Your task to perform on an android device: Go to Google Image 0: 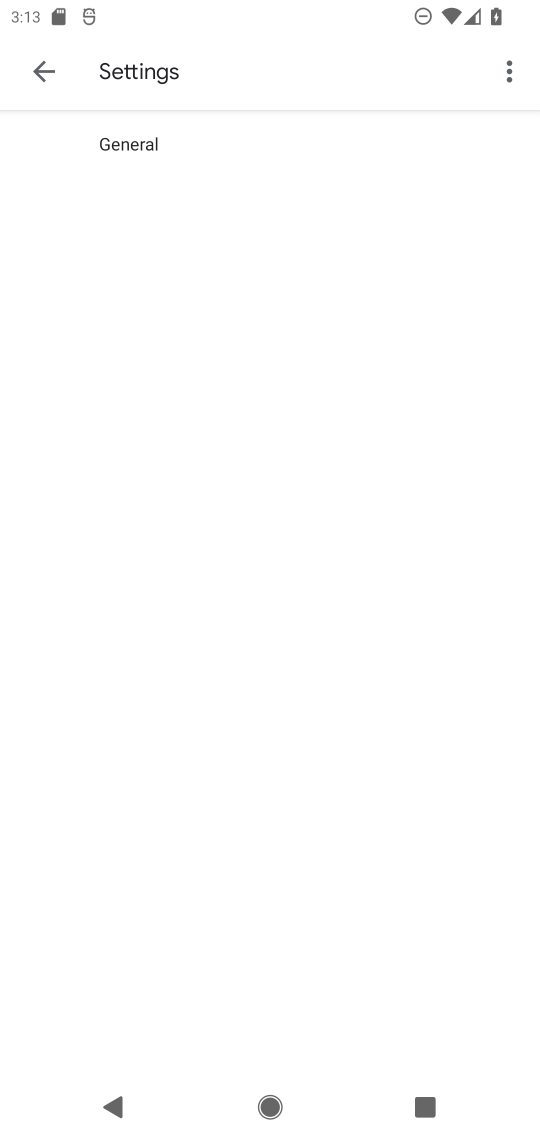
Step 0: press home button
Your task to perform on an android device: Go to Google Image 1: 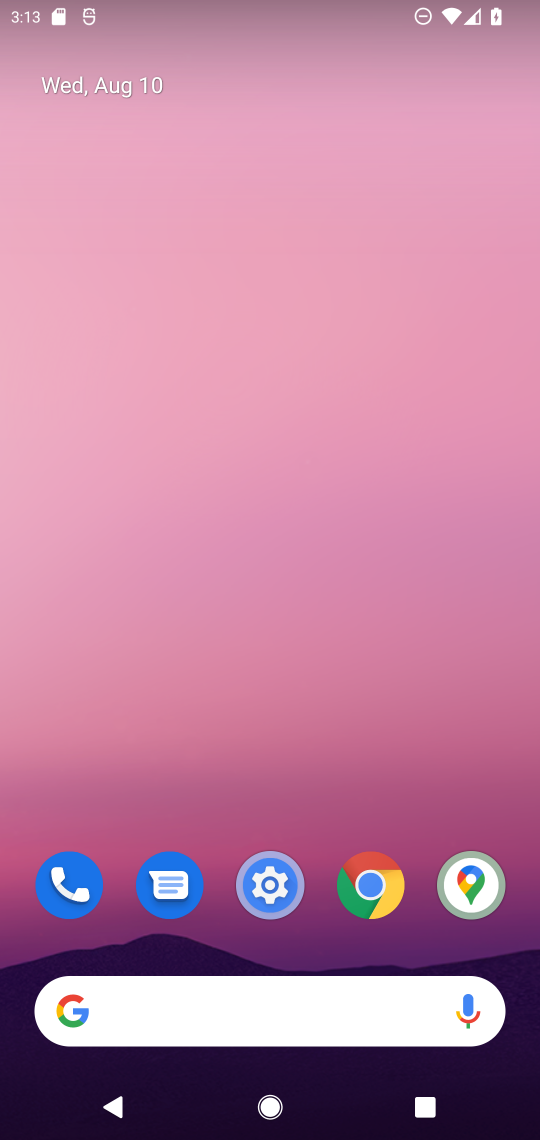
Step 1: click (71, 1016)
Your task to perform on an android device: Go to Google Image 2: 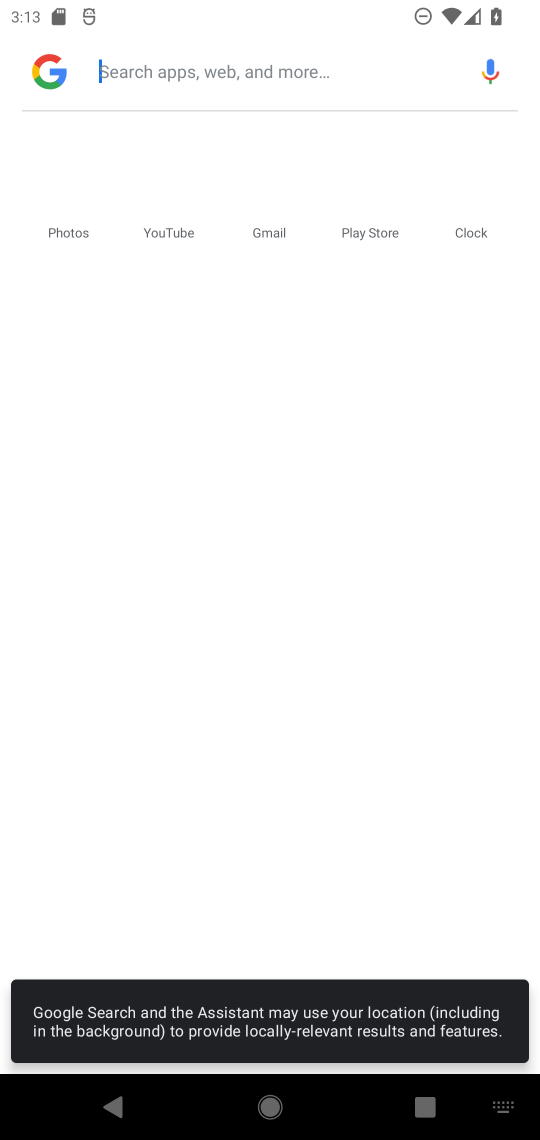
Step 2: click (54, 65)
Your task to perform on an android device: Go to Google Image 3: 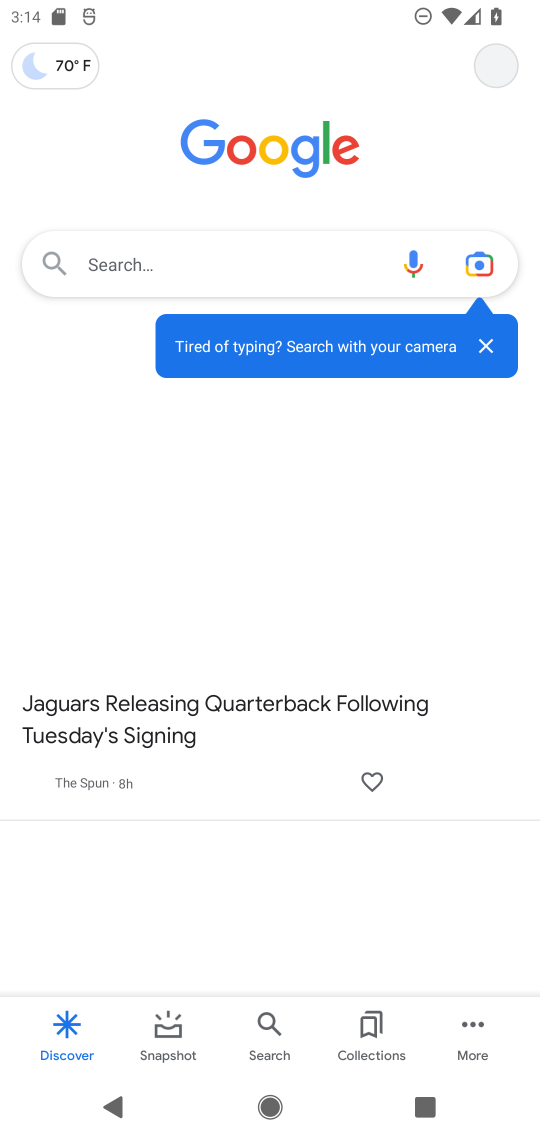
Step 3: task complete